Your task to perform on an android device: open chrome privacy settings Image 0: 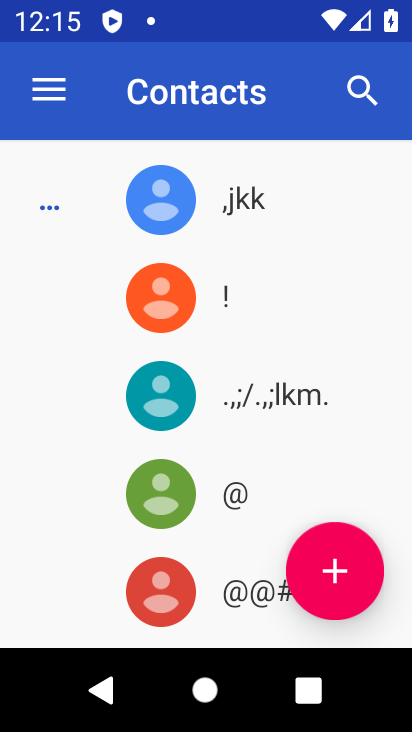
Step 0: press home button
Your task to perform on an android device: open chrome privacy settings Image 1: 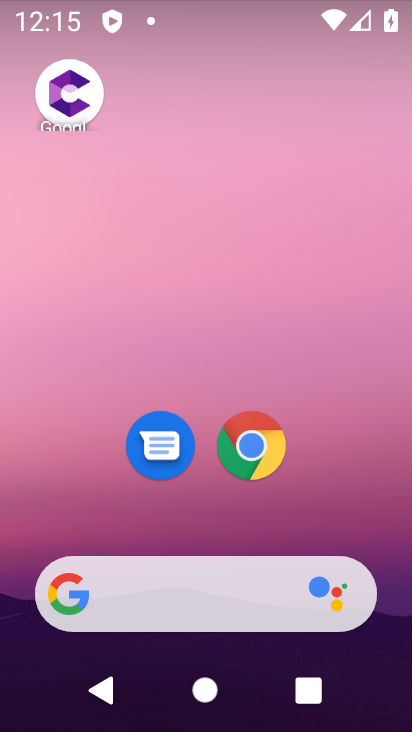
Step 1: click (249, 461)
Your task to perform on an android device: open chrome privacy settings Image 2: 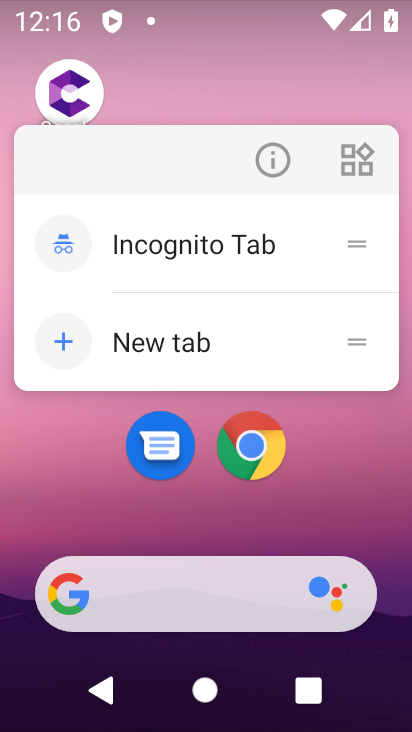
Step 2: click (250, 460)
Your task to perform on an android device: open chrome privacy settings Image 3: 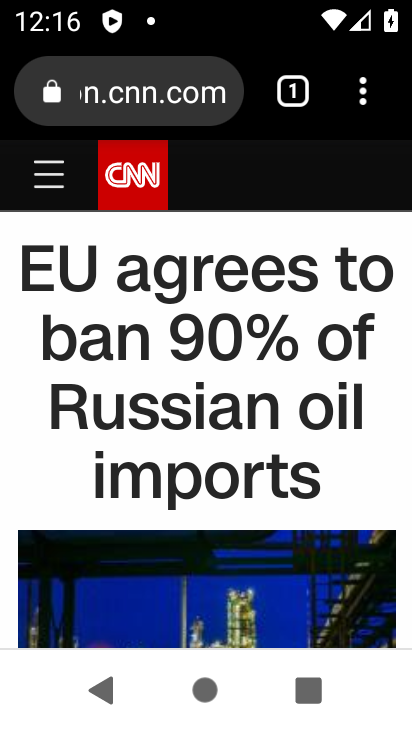
Step 3: drag from (362, 74) to (324, 480)
Your task to perform on an android device: open chrome privacy settings Image 4: 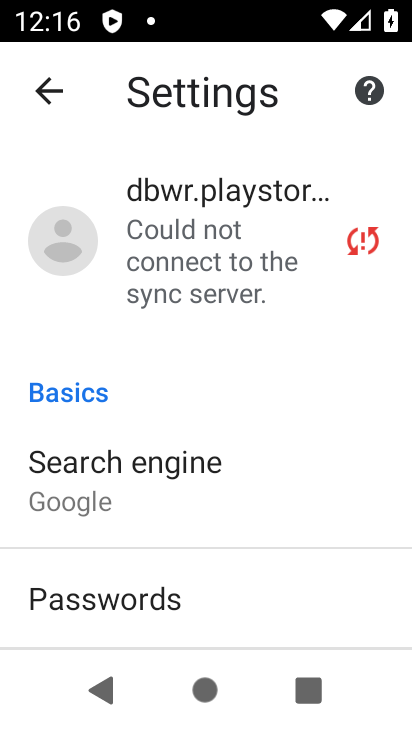
Step 4: drag from (215, 577) to (286, 271)
Your task to perform on an android device: open chrome privacy settings Image 5: 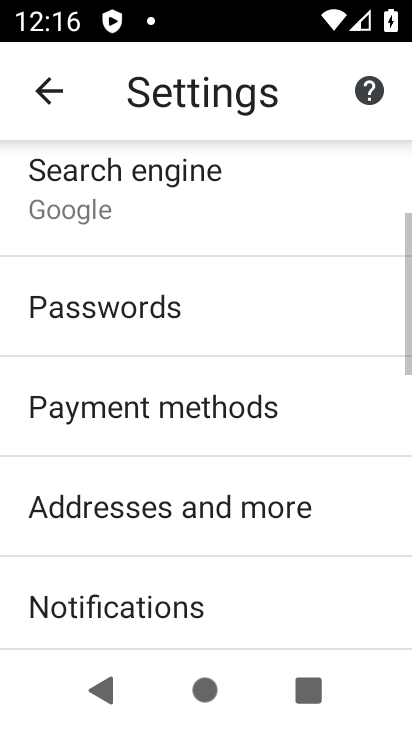
Step 5: drag from (165, 547) to (290, 237)
Your task to perform on an android device: open chrome privacy settings Image 6: 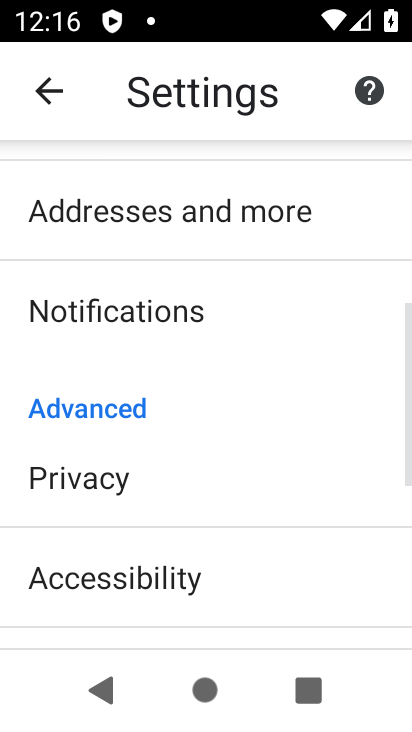
Step 6: click (157, 464)
Your task to perform on an android device: open chrome privacy settings Image 7: 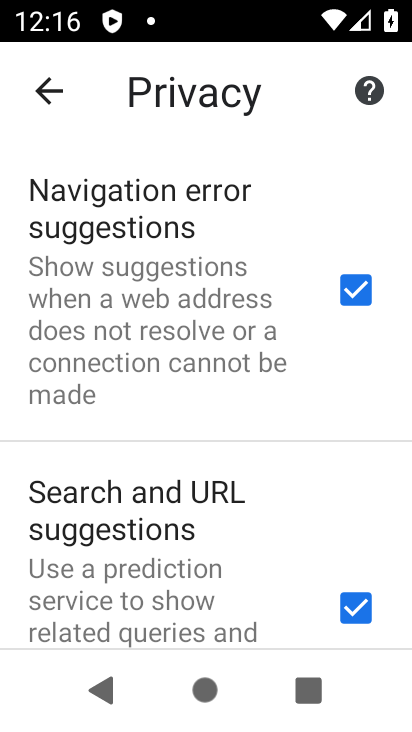
Step 7: task complete